Your task to perform on an android device: make emails show in primary in the gmail app Image 0: 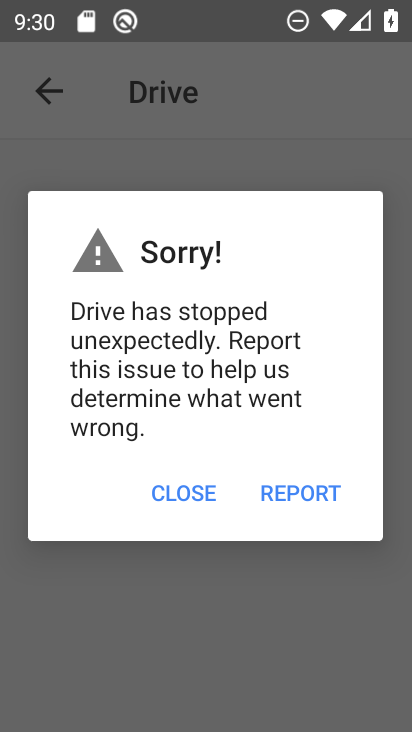
Step 0: press home button
Your task to perform on an android device: make emails show in primary in the gmail app Image 1: 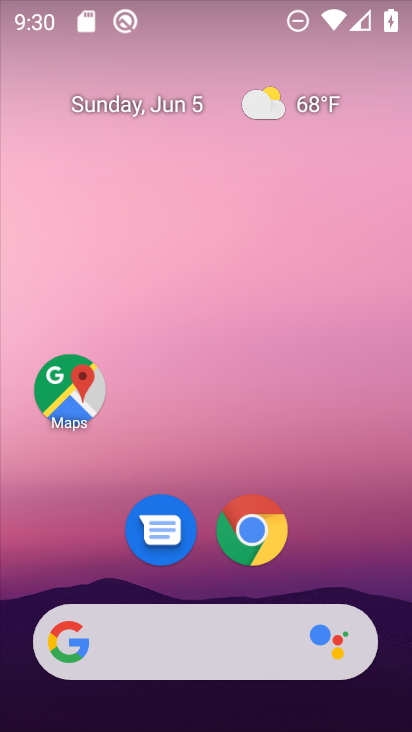
Step 1: drag from (391, 632) to (317, 173)
Your task to perform on an android device: make emails show in primary in the gmail app Image 2: 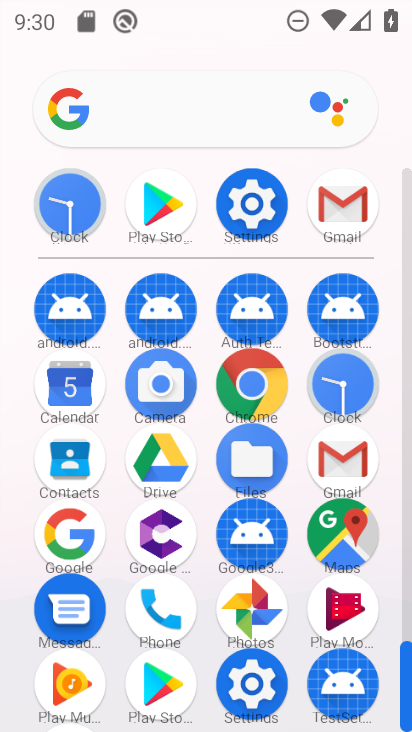
Step 2: click (343, 466)
Your task to perform on an android device: make emails show in primary in the gmail app Image 3: 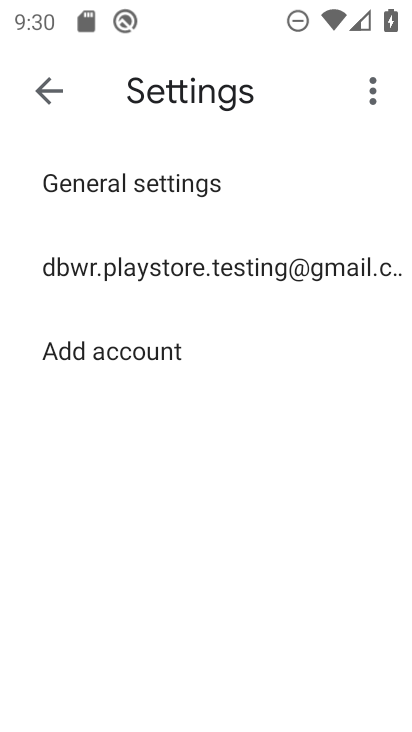
Step 3: click (151, 264)
Your task to perform on an android device: make emails show in primary in the gmail app Image 4: 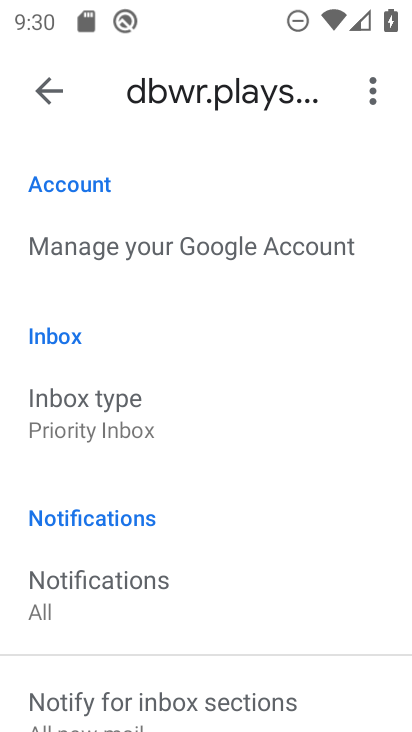
Step 4: click (74, 417)
Your task to perform on an android device: make emails show in primary in the gmail app Image 5: 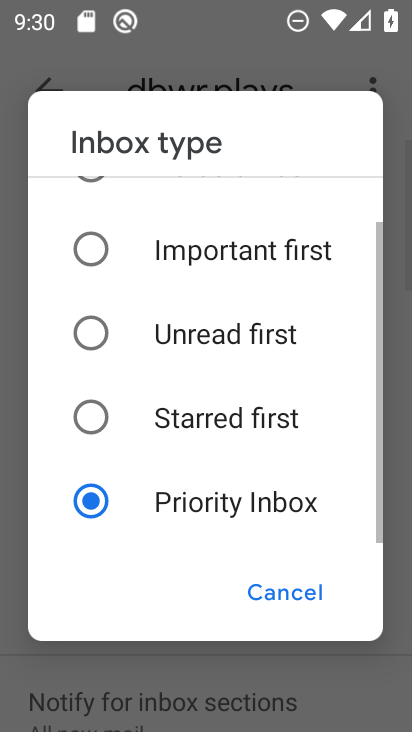
Step 5: drag from (221, 233) to (200, 475)
Your task to perform on an android device: make emails show in primary in the gmail app Image 6: 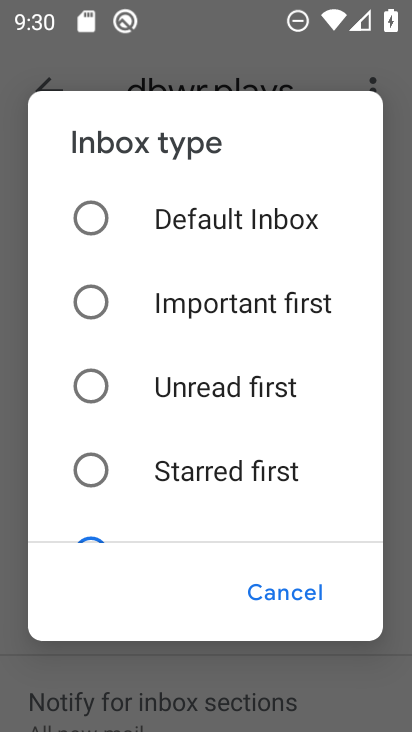
Step 6: click (89, 213)
Your task to perform on an android device: make emails show in primary in the gmail app Image 7: 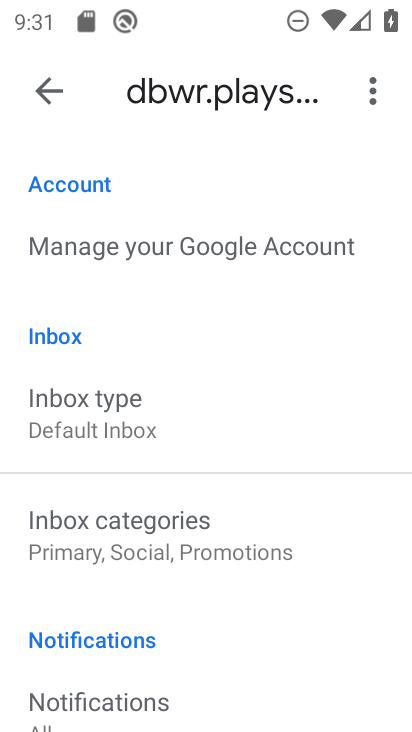
Step 7: click (130, 536)
Your task to perform on an android device: make emails show in primary in the gmail app Image 8: 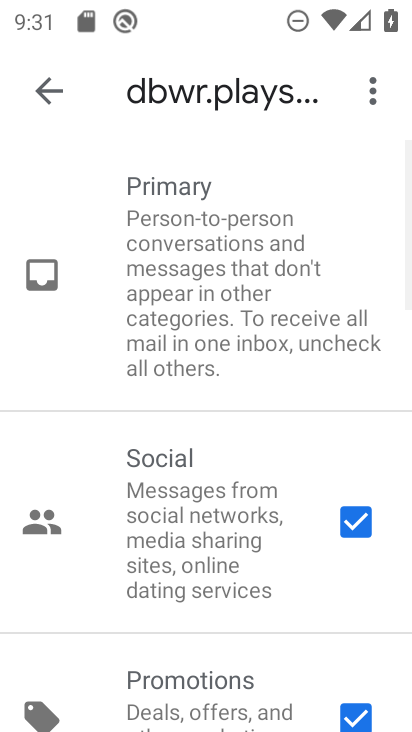
Step 8: click (348, 524)
Your task to perform on an android device: make emails show in primary in the gmail app Image 9: 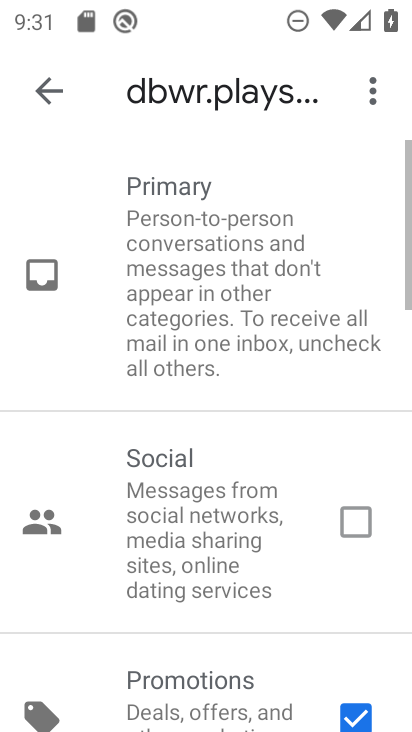
Step 9: click (348, 713)
Your task to perform on an android device: make emails show in primary in the gmail app Image 10: 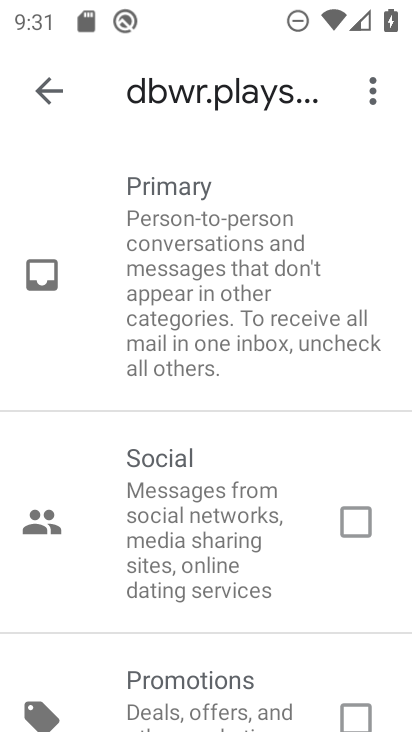
Step 10: task complete